Your task to perform on an android device: Search for sushi restaurants on Maps Image 0: 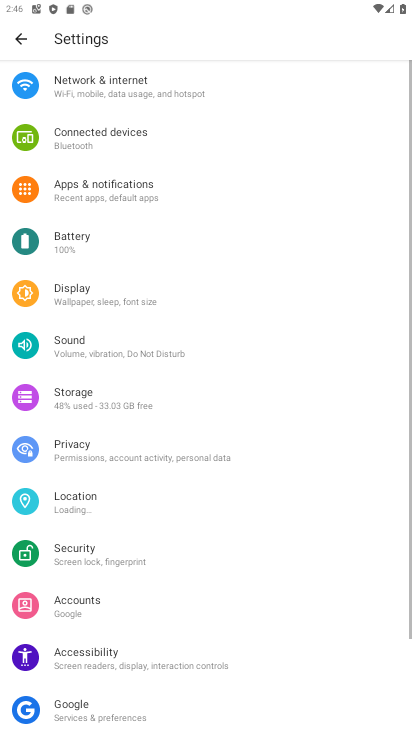
Step 0: press home button
Your task to perform on an android device: Search for sushi restaurants on Maps Image 1: 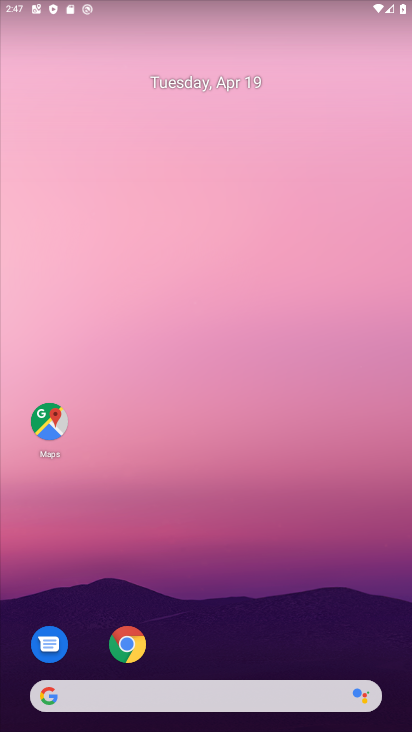
Step 1: click (55, 414)
Your task to perform on an android device: Search for sushi restaurants on Maps Image 2: 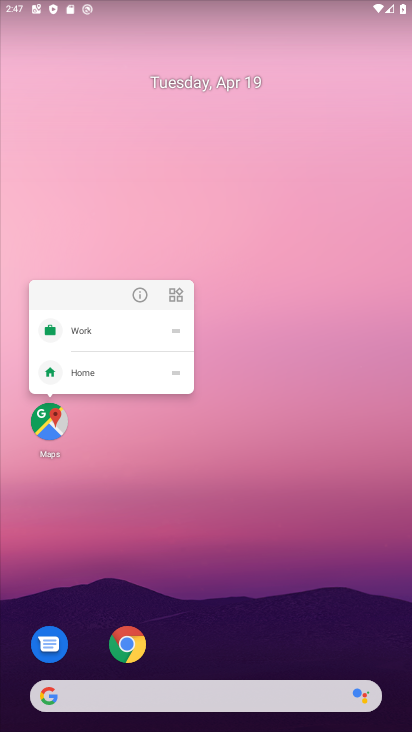
Step 2: click (48, 425)
Your task to perform on an android device: Search for sushi restaurants on Maps Image 3: 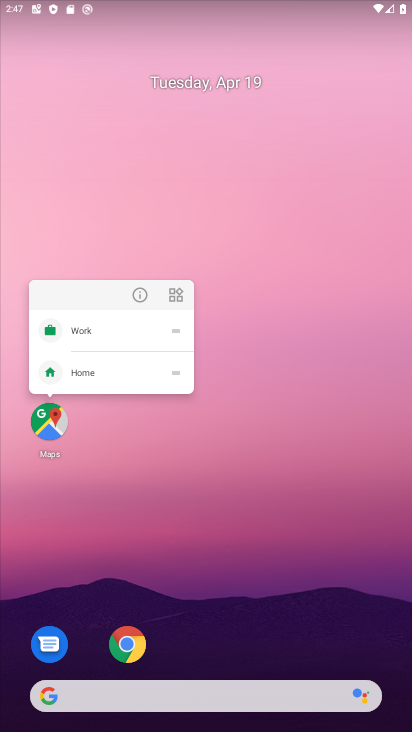
Step 3: click (48, 425)
Your task to perform on an android device: Search for sushi restaurants on Maps Image 4: 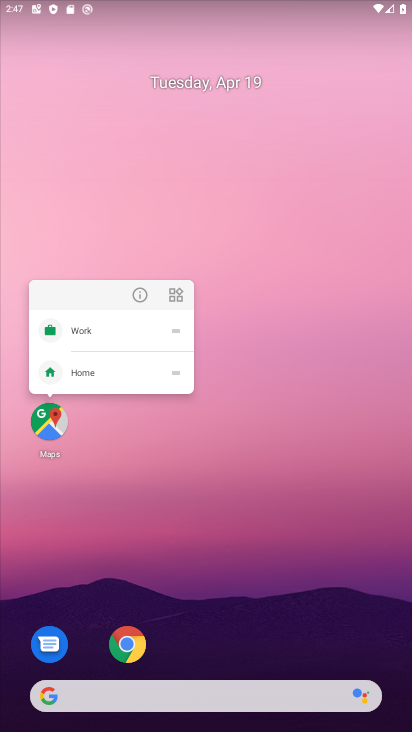
Step 4: drag from (327, 577) to (261, 3)
Your task to perform on an android device: Search for sushi restaurants on Maps Image 5: 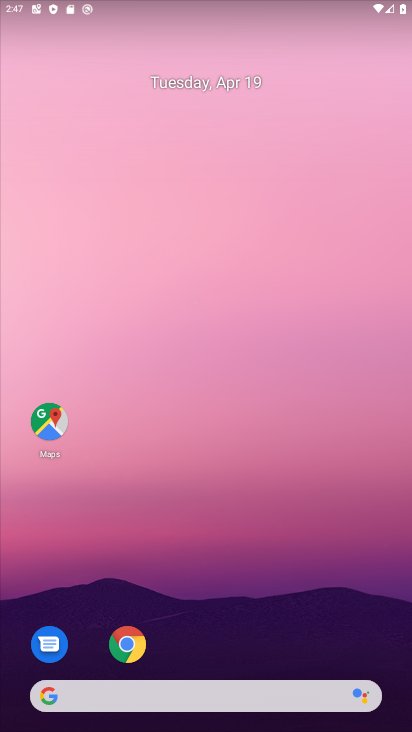
Step 5: drag from (243, 572) to (183, 28)
Your task to perform on an android device: Search for sushi restaurants on Maps Image 6: 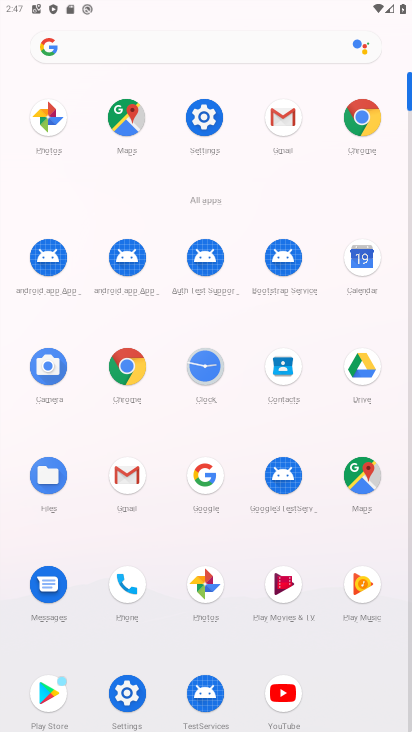
Step 6: click (357, 484)
Your task to perform on an android device: Search for sushi restaurants on Maps Image 7: 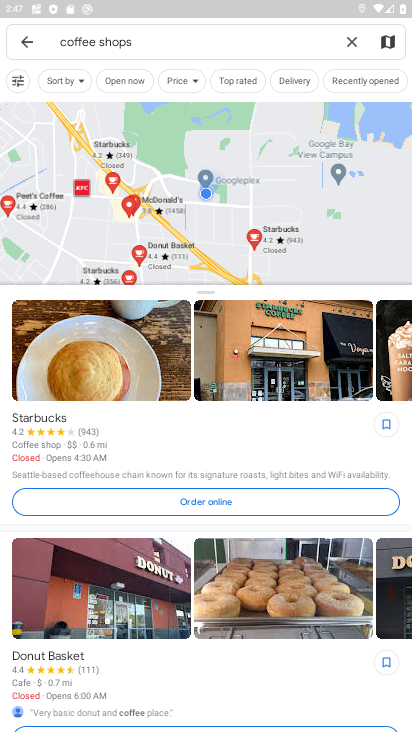
Step 7: click (211, 44)
Your task to perform on an android device: Search for sushi restaurants on Maps Image 8: 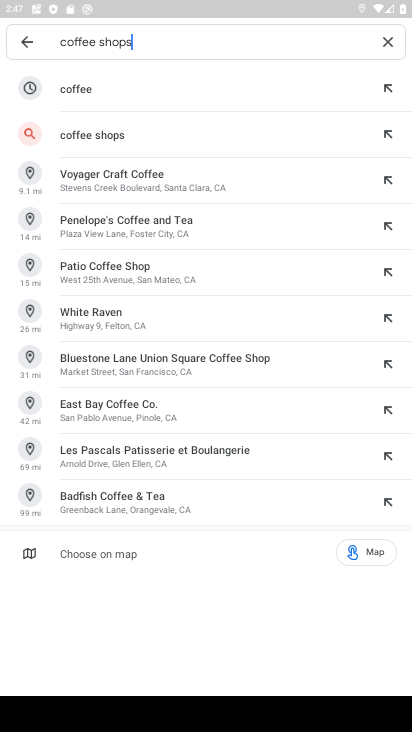
Step 8: click (389, 37)
Your task to perform on an android device: Search for sushi restaurants on Maps Image 9: 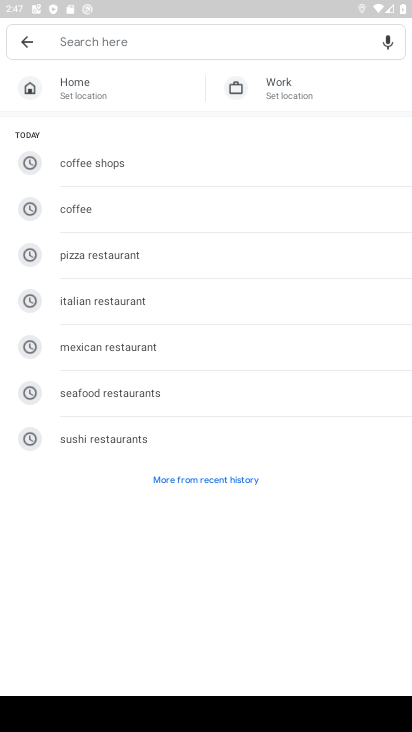
Step 9: click (117, 441)
Your task to perform on an android device: Search for sushi restaurants on Maps Image 10: 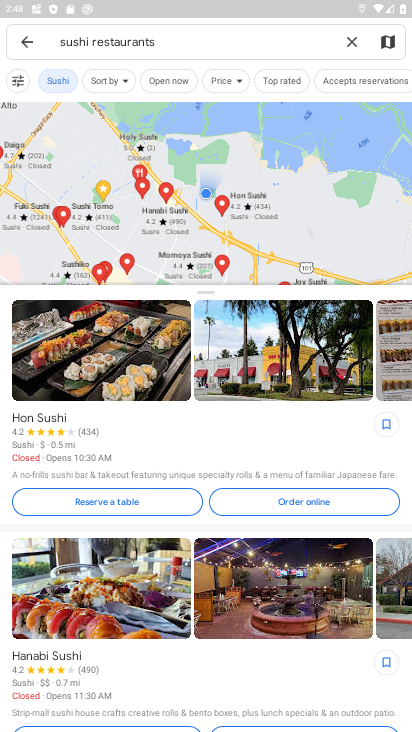
Step 10: task complete